Your task to perform on an android device: Open location settings Image 0: 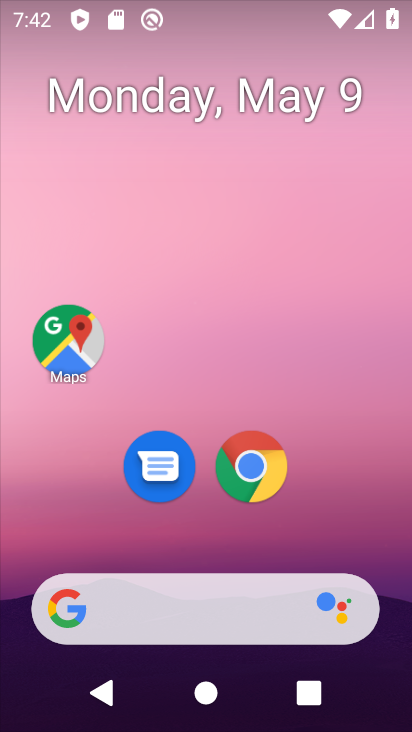
Step 0: drag from (278, 631) to (263, 6)
Your task to perform on an android device: Open location settings Image 1: 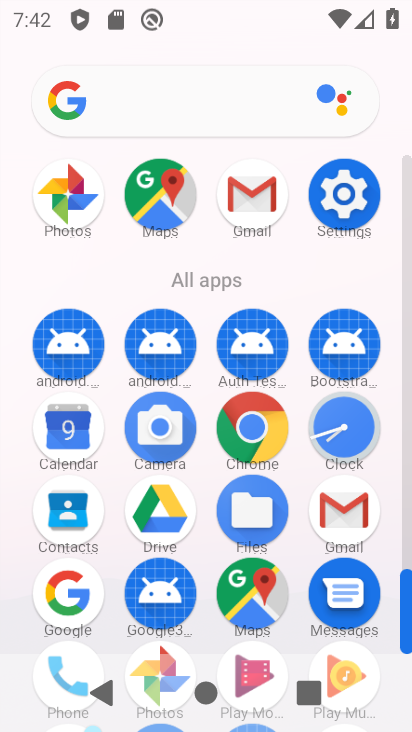
Step 1: click (355, 210)
Your task to perform on an android device: Open location settings Image 2: 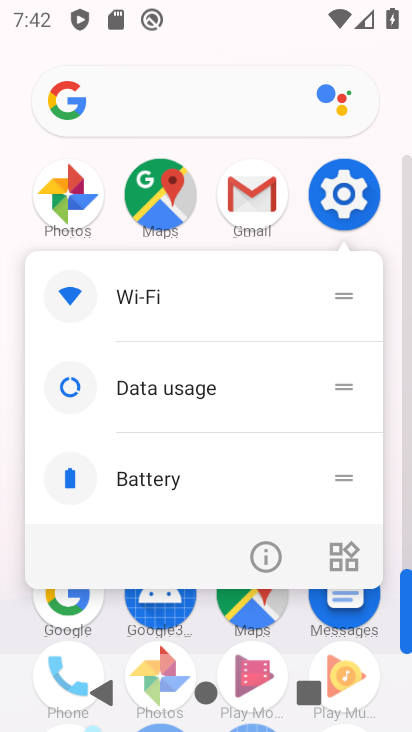
Step 2: click (348, 204)
Your task to perform on an android device: Open location settings Image 3: 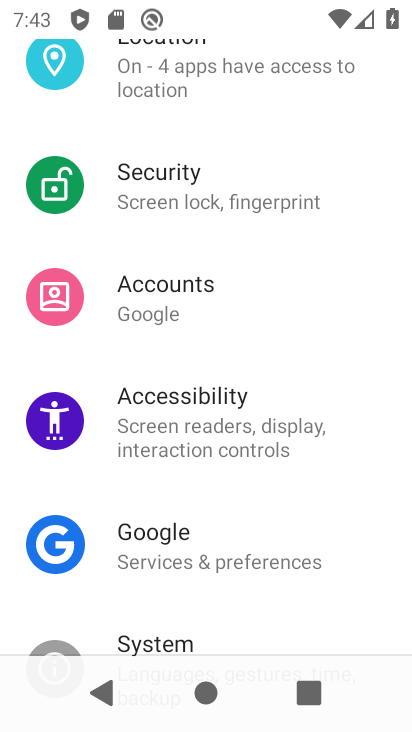
Step 3: drag from (302, 127) to (308, 576)
Your task to perform on an android device: Open location settings Image 4: 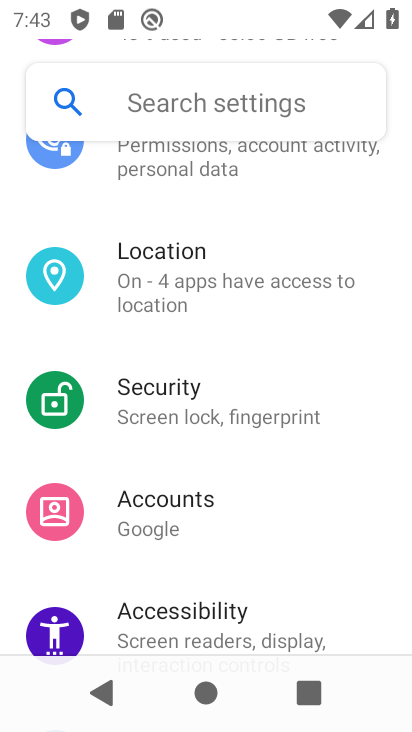
Step 4: click (250, 296)
Your task to perform on an android device: Open location settings Image 5: 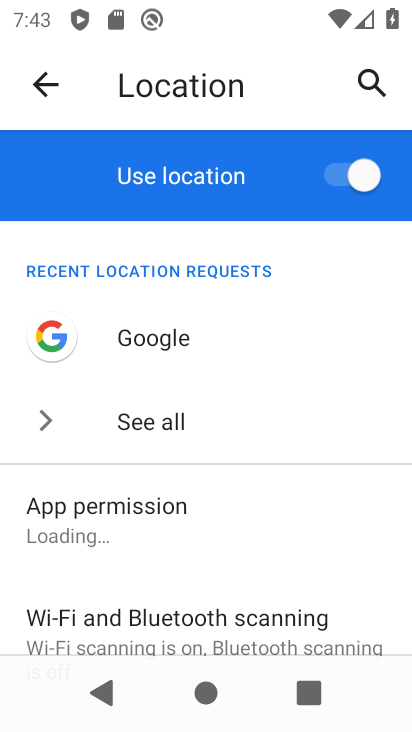
Step 5: task complete